Your task to perform on an android device: Show me productivity apps on the Play Store Image 0: 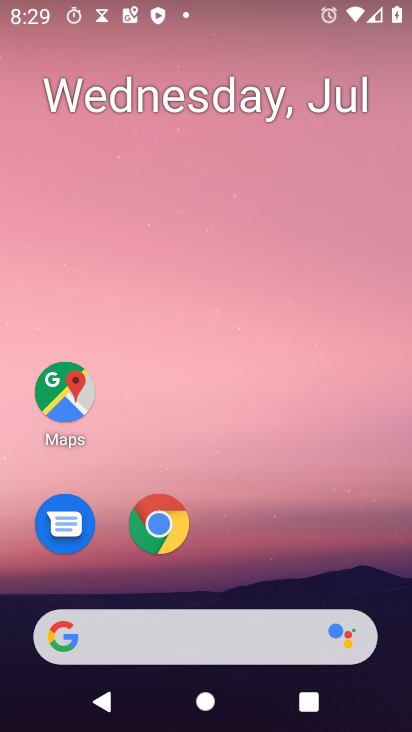
Step 0: drag from (176, 626) to (300, 155)
Your task to perform on an android device: Show me productivity apps on the Play Store Image 1: 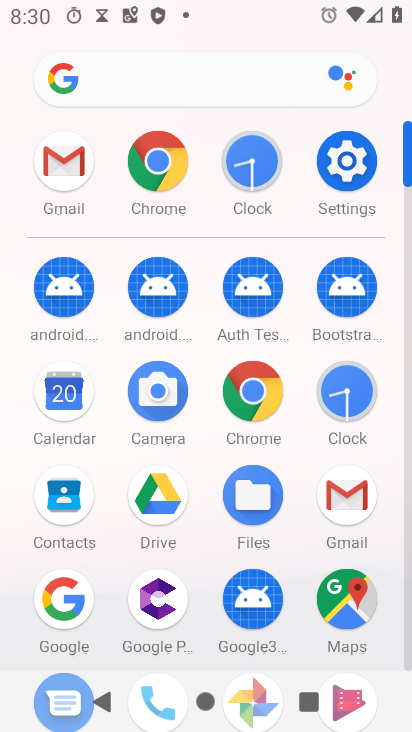
Step 1: drag from (200, 553) to (287, 137)
Your task to perform on an android device: Show me productivity apps on the Play Store Image 2: 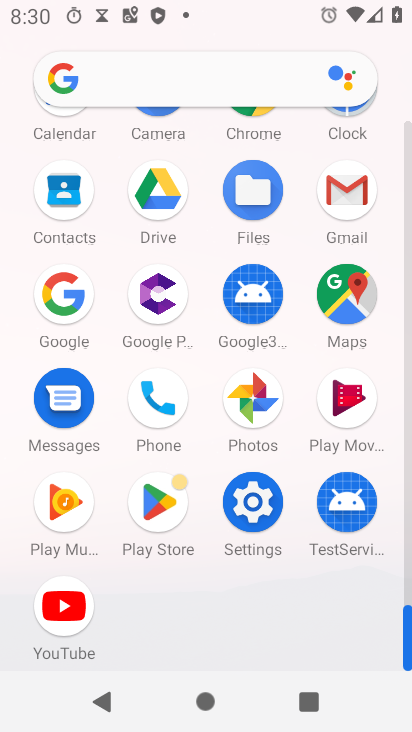
Step 2: click (161, 502)
Your task to perform on an android device: Show me productivity apps on the Play Store Image 3: 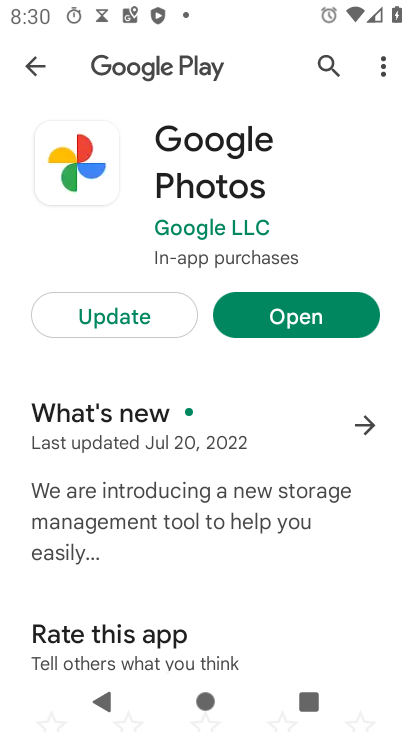
Step 3: click (31, 63)
Your task to perform on an android device: Show me productivity apps on the Play Store Image 4: 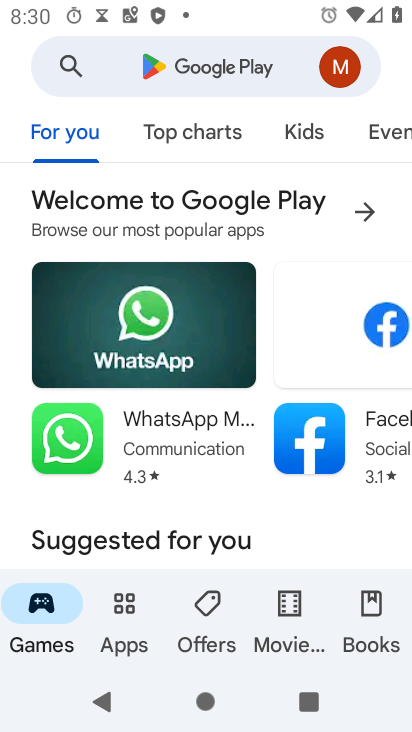
Step 4: click (132, 633)
Your task to perform on an android device: Show me productivity apps on the Play Store Image 5: 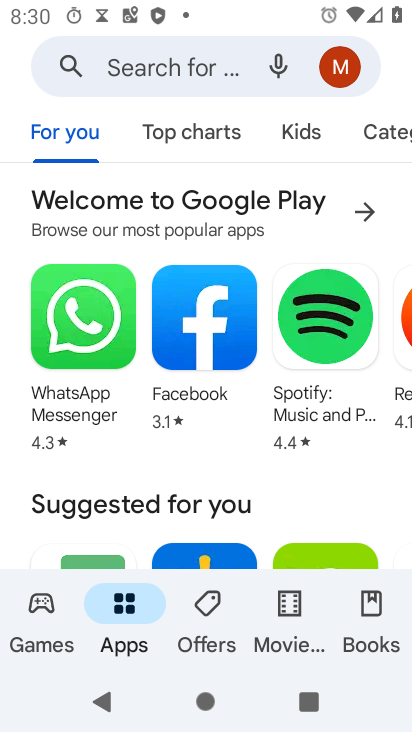
Step 5: click (367, 132)
Your task to perform on an android device: Show me productivity apps on the Play Store Image 6: 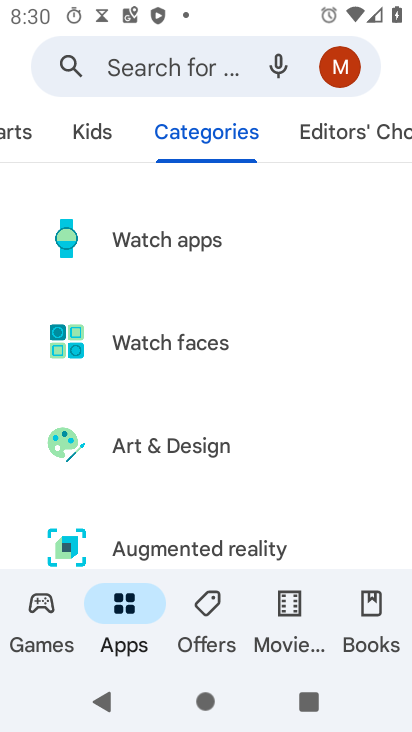
Step 6: drag from (263, 506) to (303, 12)
Your task to perform on an android device: Show me productivity apps on the Play Store Image 7: 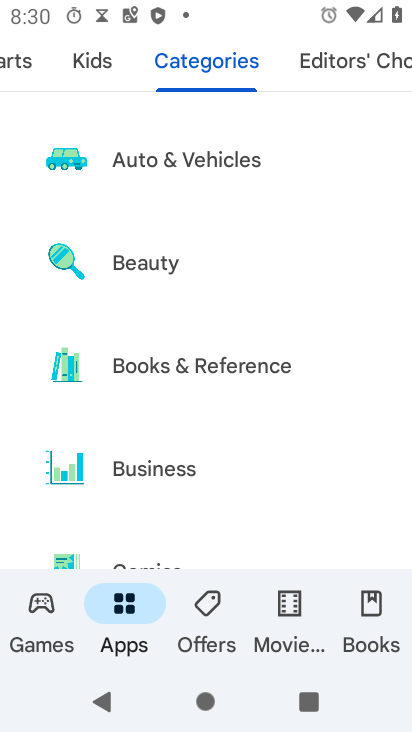
Step 7: drag from (285, 491) to (271, 79)
Your task to perform on an android device: Show me productivity apps on the Play Store Image 8: 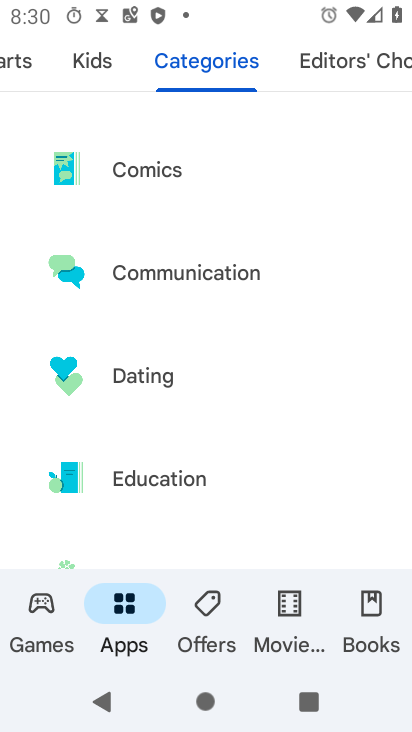
Step 8: drag from (261, 486) to (325, 13)
Your task to perform on an android device: Show me productivity apps on the Play Store Image 9: 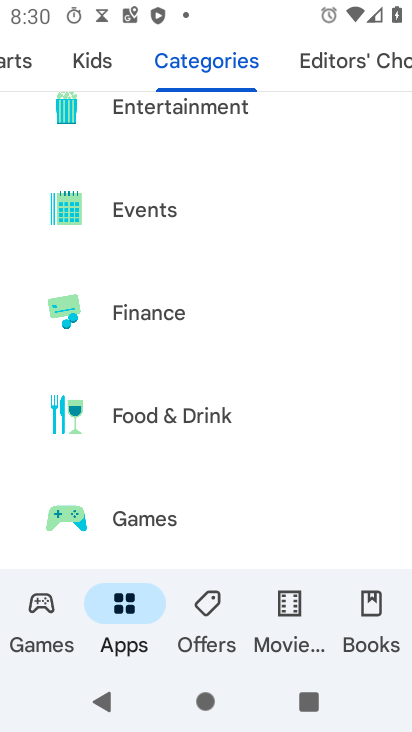
Step 9: drag from (272, 508) to (270, 36)
Your task to perform on an android device: Show me productivity apps on the Play Store Image 10: 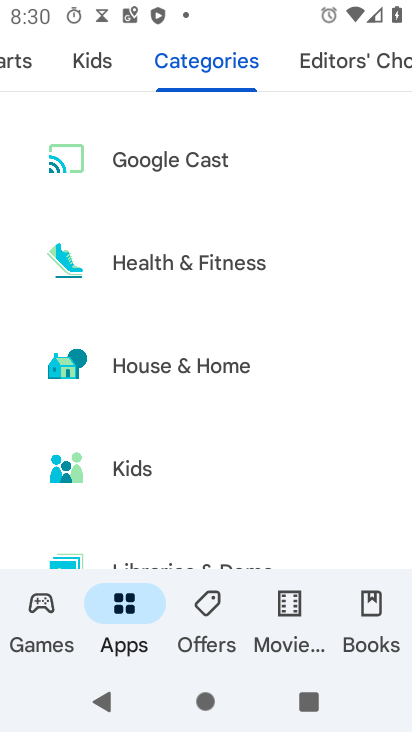
Step 10: drag from (247, 508) to (293, 67)
Your task to perform on an android device: Show me productivity apps on the Play Store Image 11: 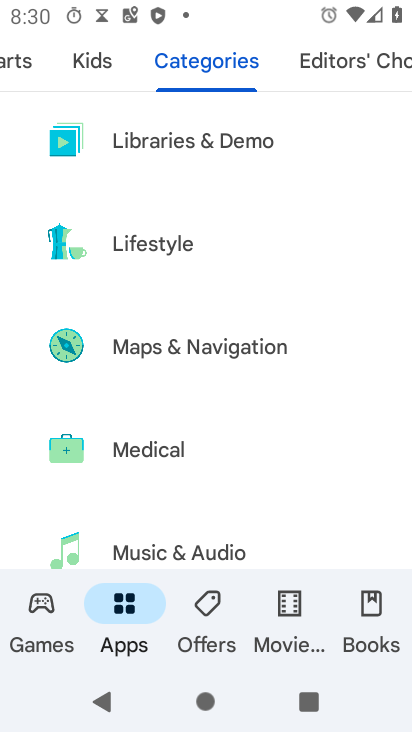
Step 11: drag from (283, 484) to (238, 3)
Your task to perform on an android device: Show me productivity apps on the Play Store Image 12: 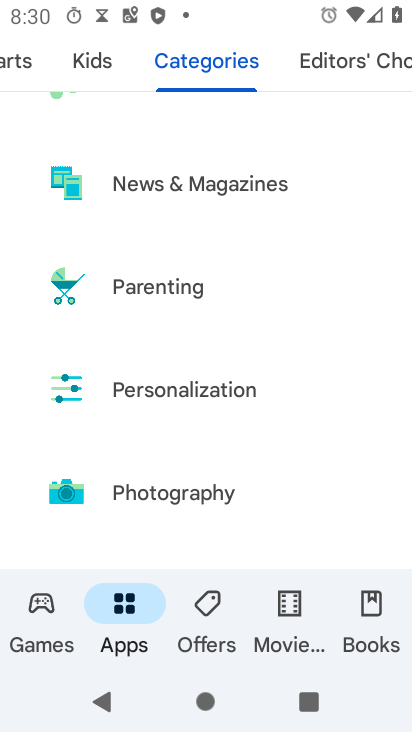
Step 12: drag from (272, 444) to (260, 21)
Your task to perform on an android device: Show me productivity apps on the Play Store Image 13: 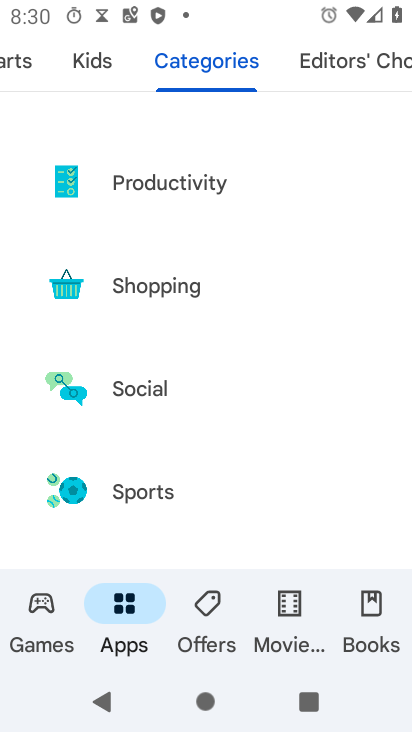
Step 13: click (181, 178)
Your task to perform on an android device: Show me productivity apps on the Play Store Image 14: 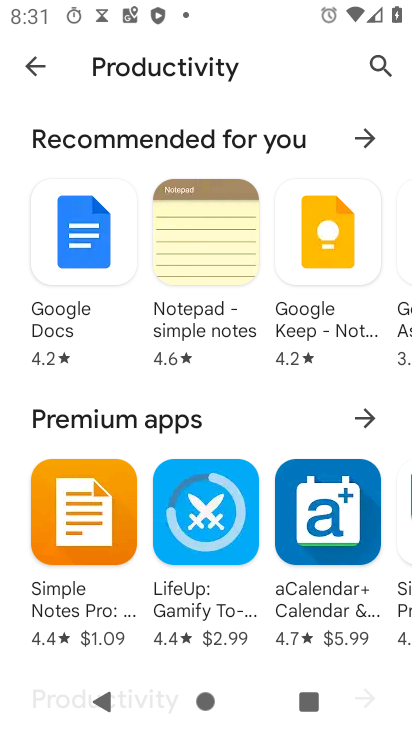
Step 14: task complete